Your task to perform on an android device: When is my next appointment? Image 0: 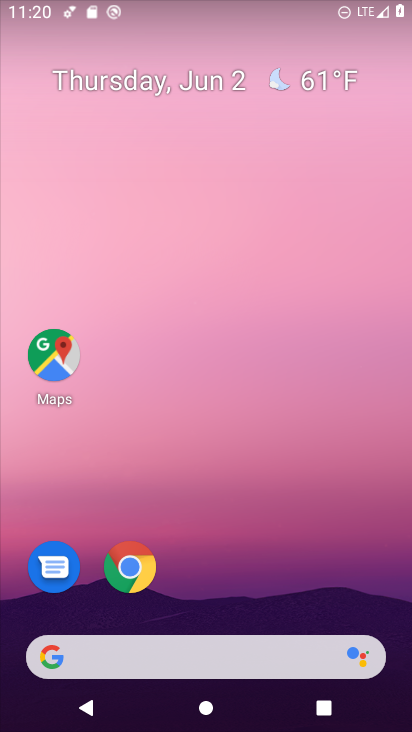
Step 0: drag from (321, 524) to (303, 36)
Your task to perform on an android device: When is my next appointment? Image 1: 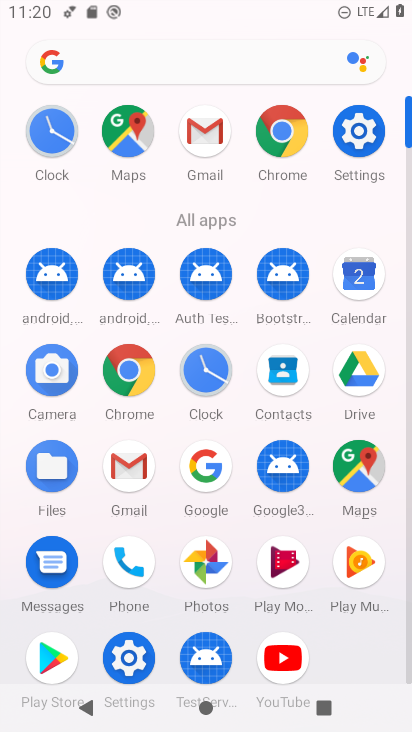
Step 1: click (353, 267)
Your task to perform on an android device: When is my next appointment? Image 2: 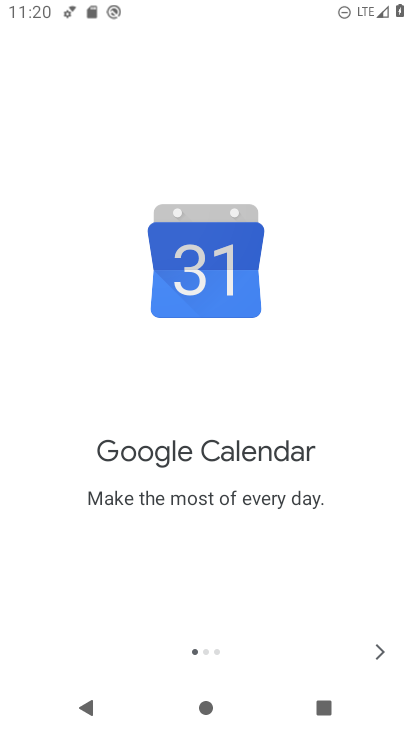
Step 2: click (362, 651)
Your task to perform on an android device: When is my next appointment? Image 3: 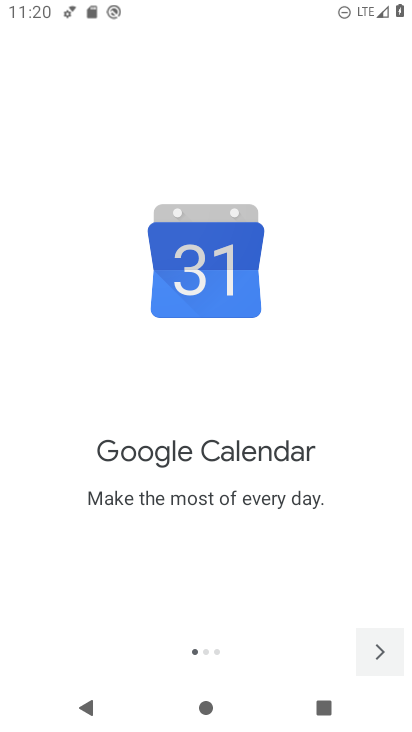
Step 3: click (363, 648)
Your task to perform on an android device: When is my next appointment? Image 4: 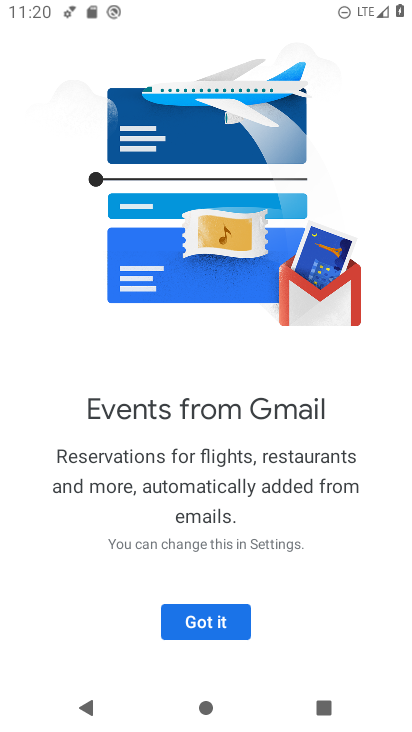
Step 4: click (225, 617)
Your task to perform on an android device: When is my next appointment? Image 5: 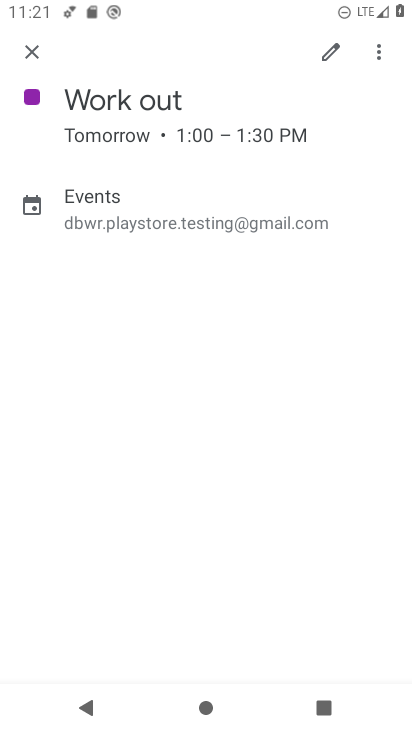
Step 5: click (43, 53)
Your task to perform on an android device: When is my next appointment? Image 6: 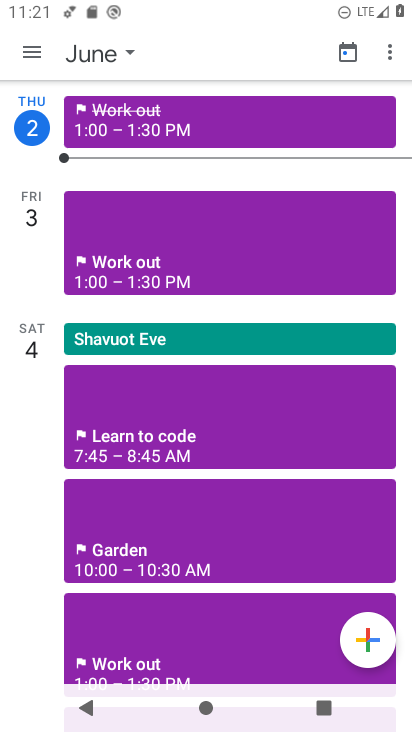
Step 6: click (119, 51)
Your task to perform on an android device: When is my next appointment? Image 7: 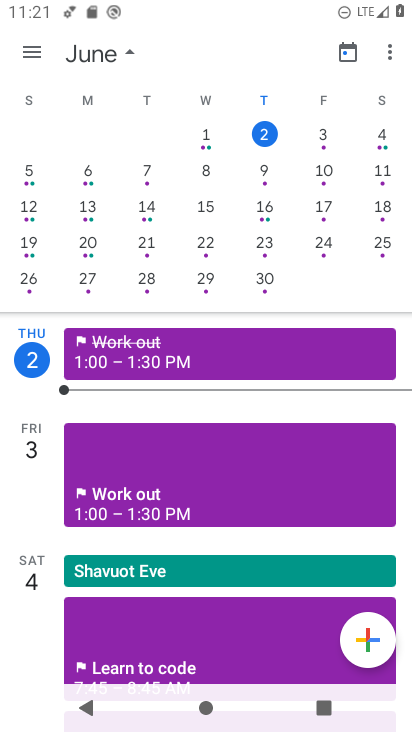
Step 7: click (318, 127)
Your task to perform on an android device: When is my next appointment? Image 8: 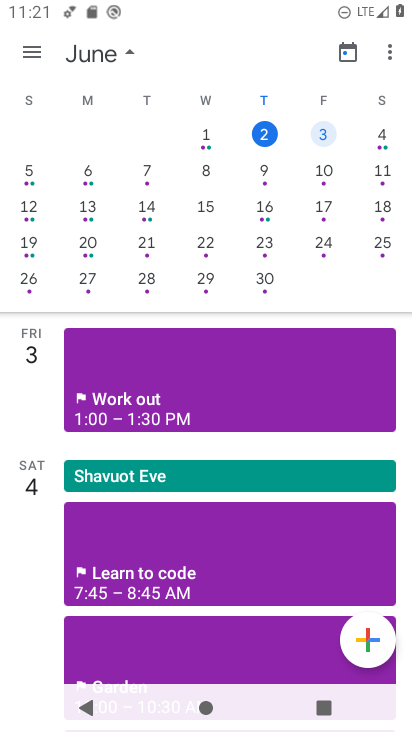
Step 8: click (23, 51)
Your task to perform on an android device: When is my next appointment? Image 9: 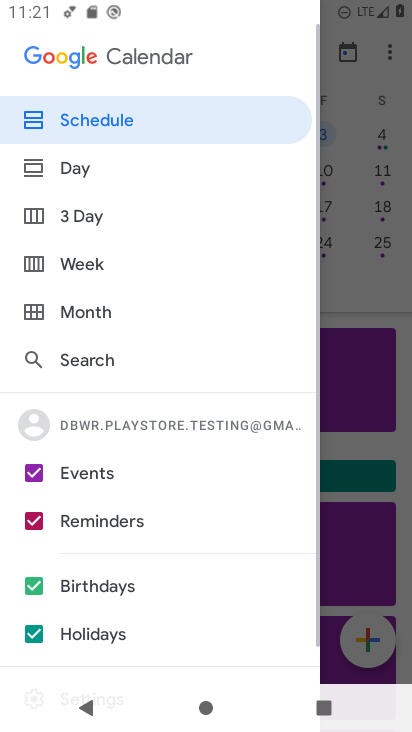
Step 9: click (96, 216)
Your task to perform on an android device: When is my next appointment? Image 10: 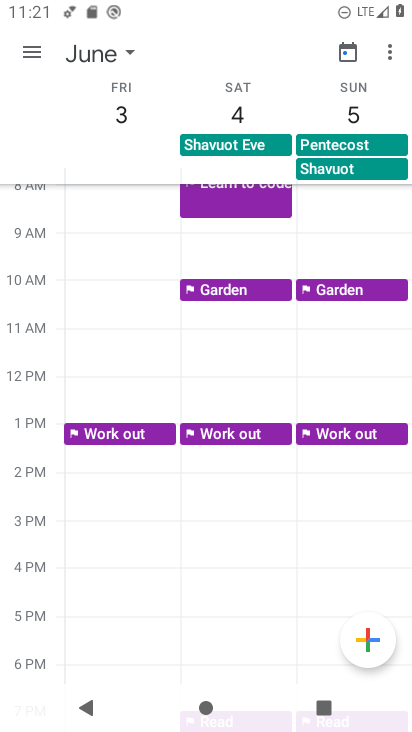
Step 10: task complete